Your task to perform on an android device: Go to display settings Image 0: 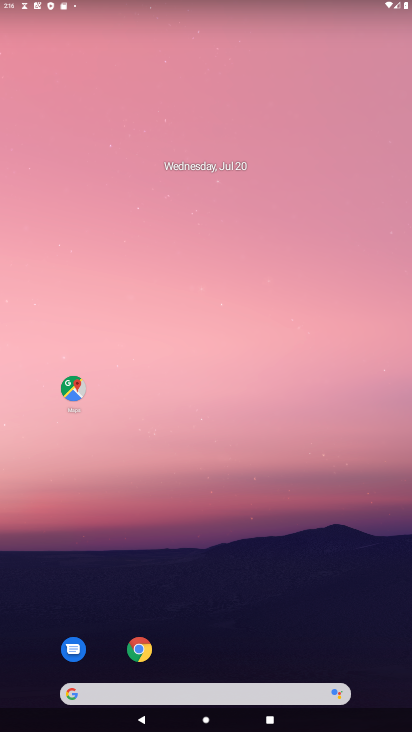
Step 0: drag from (232, 506) to (276, 92)
Your task to perform on an android device: Go to display settings Image 1: 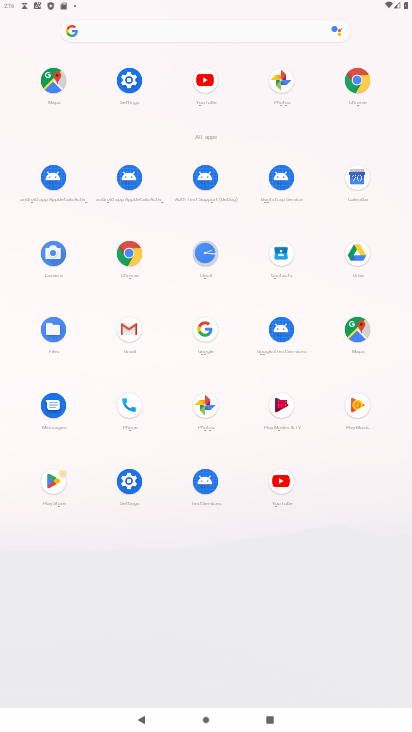
Step 1: click (133, 477)
Your task to perform on an android device: Go to display settings Image 2: 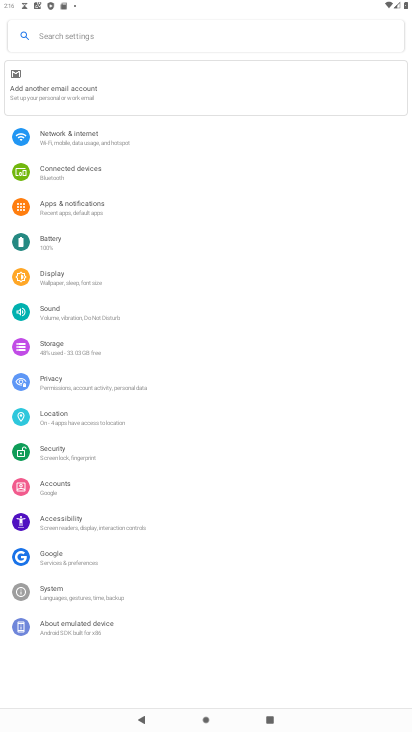
Step 2: click (70, 278)
Your task to perform on an android device: Go to display settings Image 3: 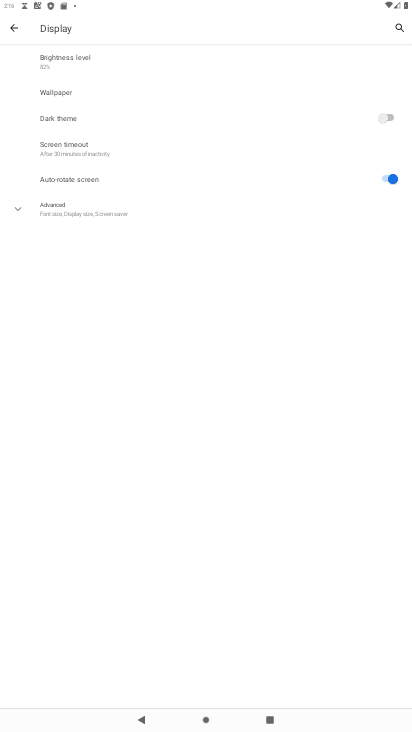
Step 3: task complete